Your task to perform on an android device: manage bookmarks in the chrome app Image 0: 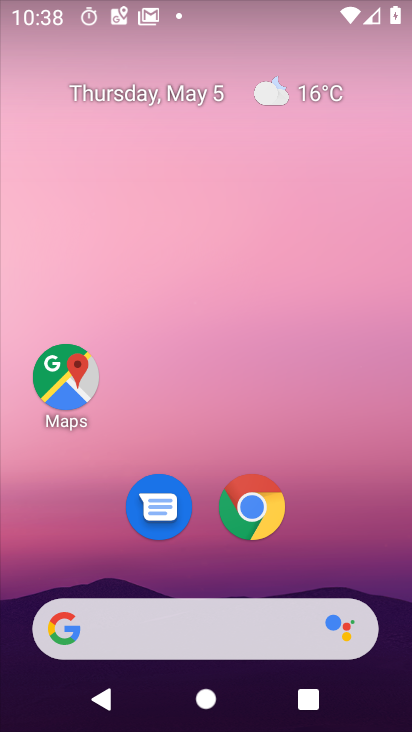
Step 0: click (258, 507)
Your task to perform on an android device: manage bookmarks in the chrome app Image 1: 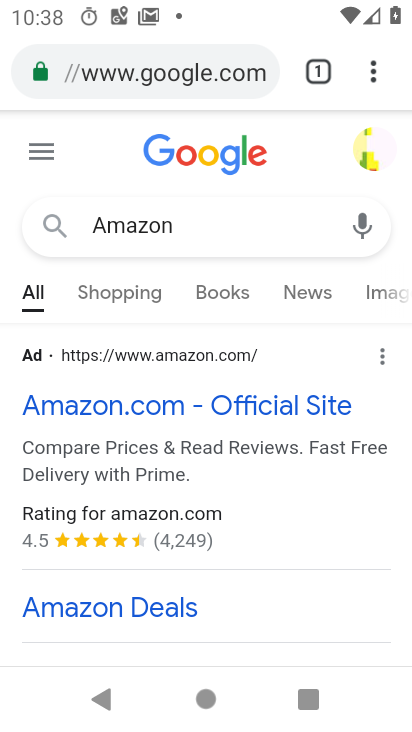
Step 1: click (375, 66)
Your task to perform on an android device: manage bookmarks in the chrome app Image 2: 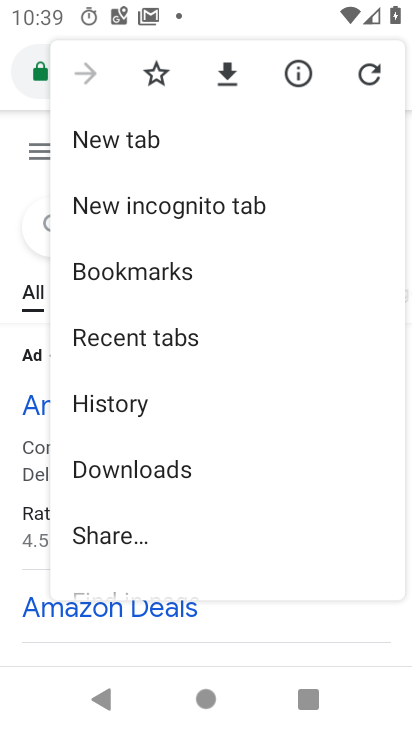
Step 2: click (119, 274)
Your task to perform on an android device: manage bookmarks in the chrome app Image 3: 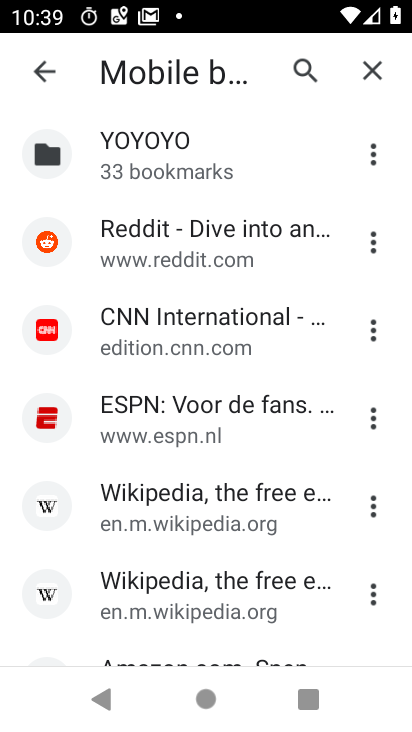
Step 3: task complete